Your task to perform on an android device: Find coffee shops on Maps Image 0: 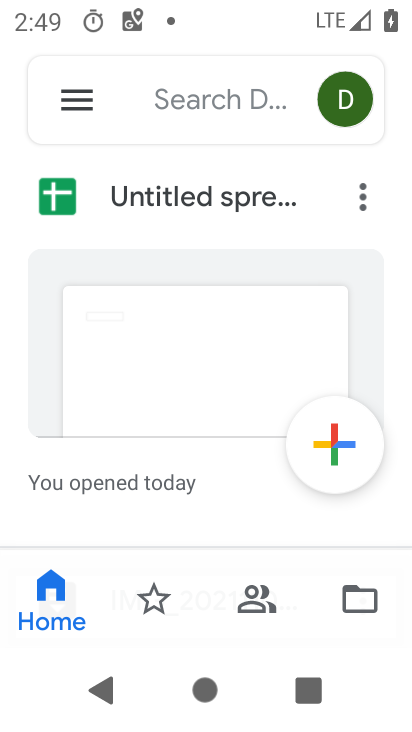
Step 0: press home button
Your task to perform on an android device: Find coffee shops on Maps Image 1: 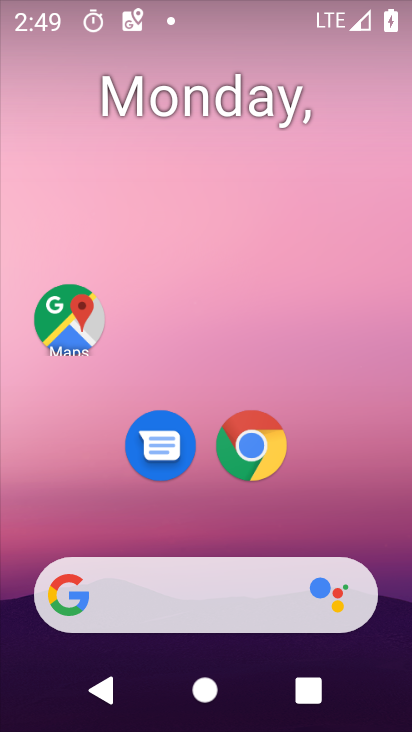
Step 1: click (70, 317)
Your task to perform on an android device: Find coffee shops on Maps Image 2: 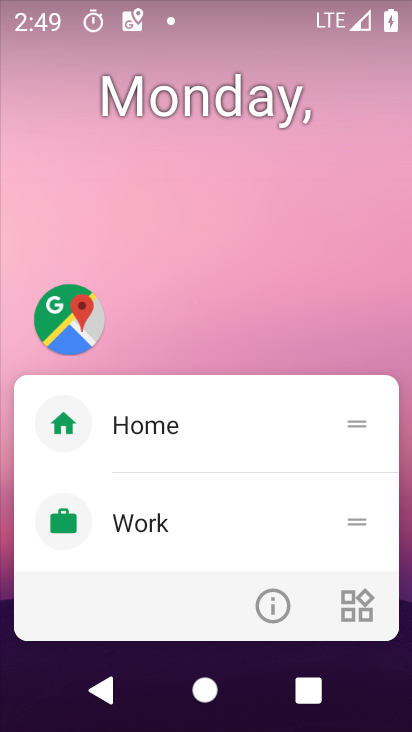
Step 2: click (84, 305)
Your task to perform on an android device: Find coffee shops on Maps Image 3: 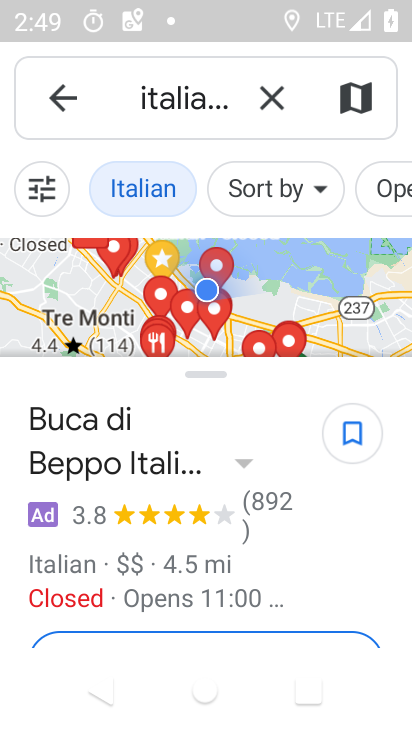
Step 3: click (266, 107)
Your task to perform on an android device: Find coffee shops on Maps Image 4: 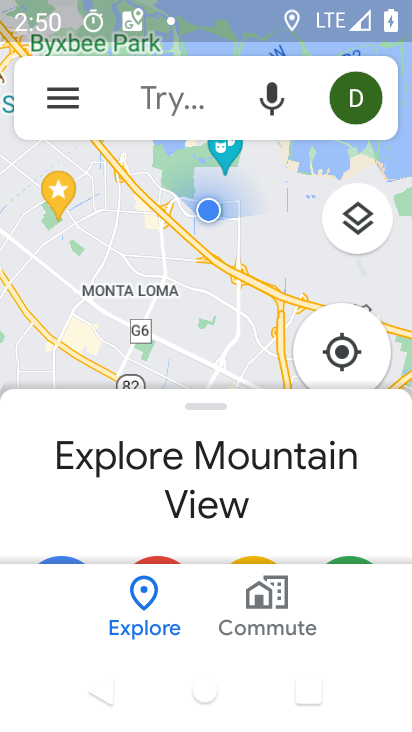
Step 4: click (161, 96)
Your task to perform on an android device: Find coffee shops on Maps Image 5: 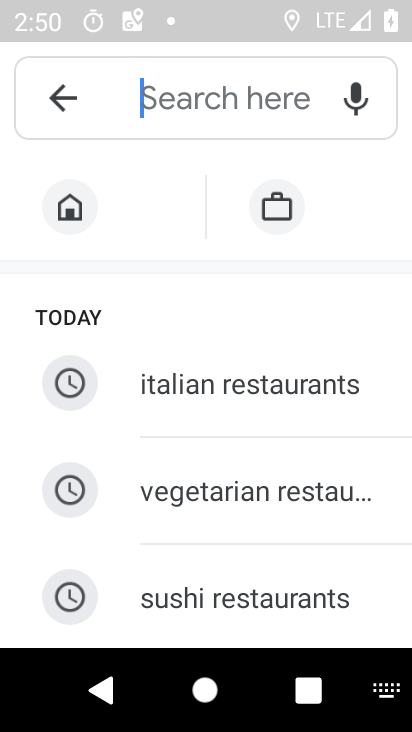
Step 5: type "coffe shops"
Your task to perform on an android device: Find coffee shops on Maps Image 6: 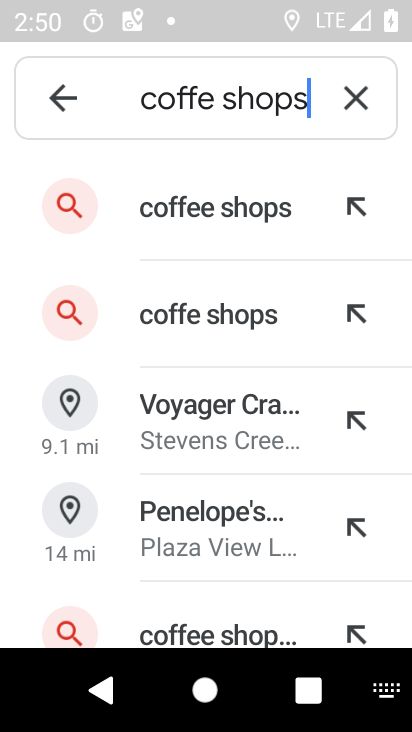
Step 6: click (260, 213)
Your task to perform on an android device: Find coffee shops on Maps Image 7: 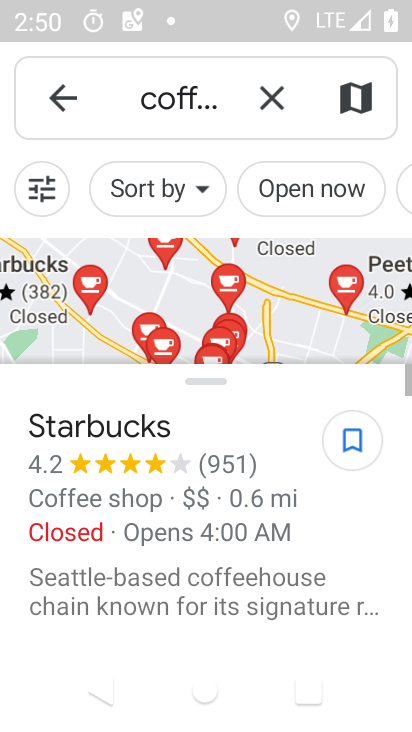
Step 7: task complete